Your task to perform on an android device: Go to Yahoo.com Image 0: 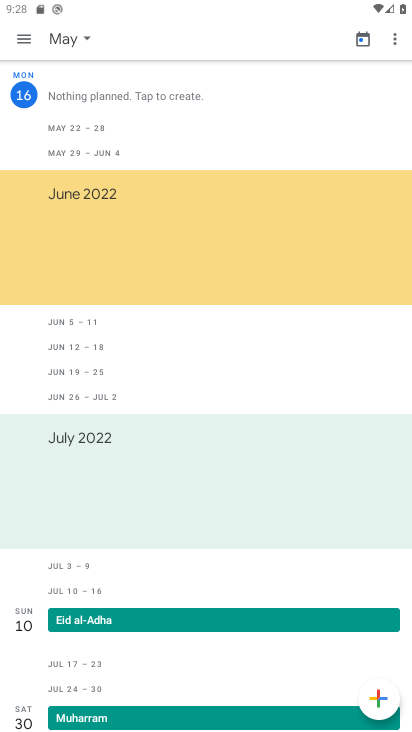
Step 0: press home button
Your task to perform on an android device: Go to Yahoo.com Image 1: 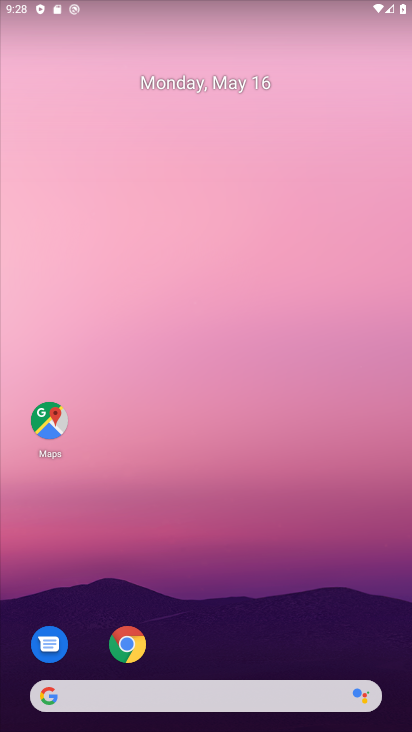
Step 1: click (124, 636)
Your task to perform on an android device: Go to Yahoo.com Image 2: 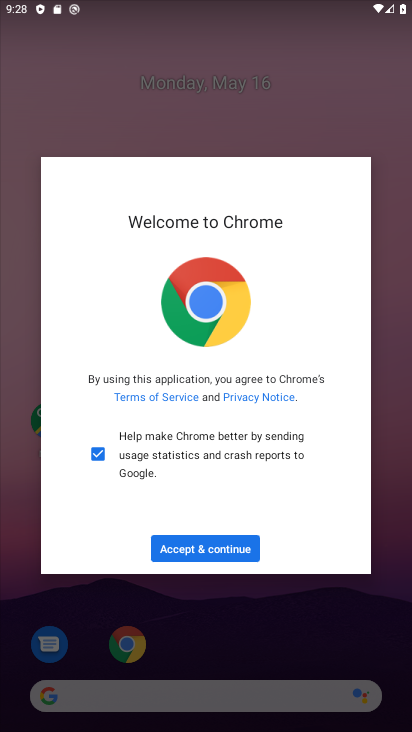
Step 2: click (165, 544)
Your task to perform on an android device: Go to Yahoo.com Image 3: 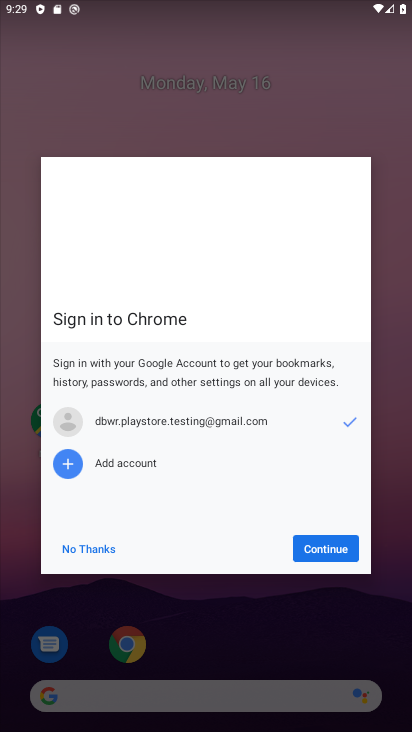
Step 3: click (105, 543)
Your task to perform on an android device: Go to Yahoo.com Image 4: 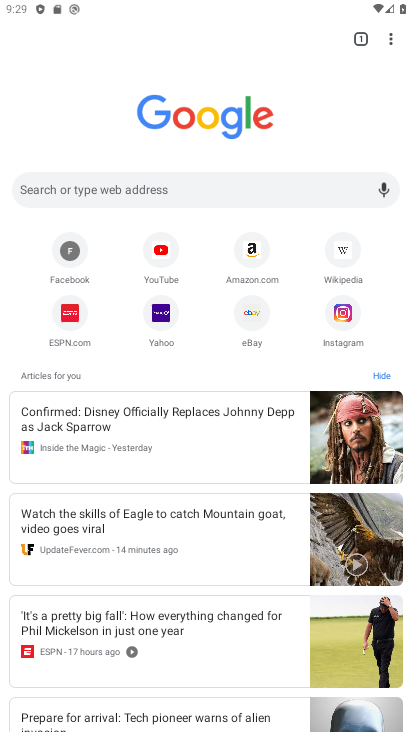
Step 4: click (161, 311)
Your task to perform on an android device: Go to Yahoo.com Image 5: 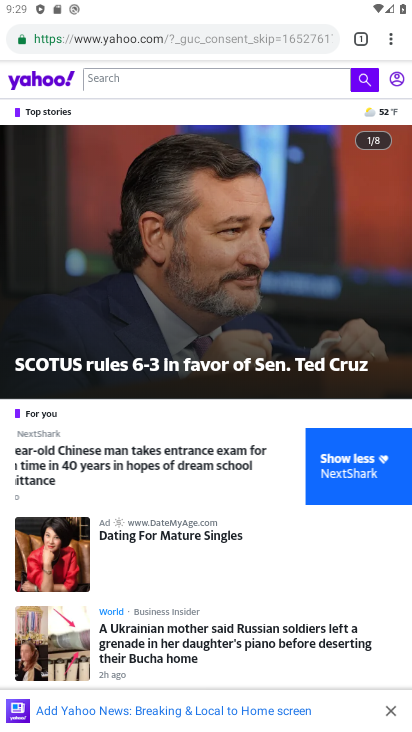
Step 5: task complete